Your task to perform on an android device: add a label to a message in the gmail app Image 0: 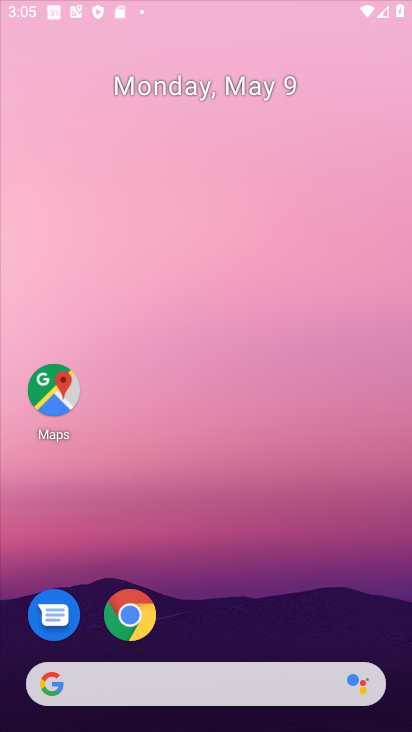
Step 0: drag from (346, 342) to (352, 156)
Your task to perform on an android device: add a label to a message in the gmail app Image 1: 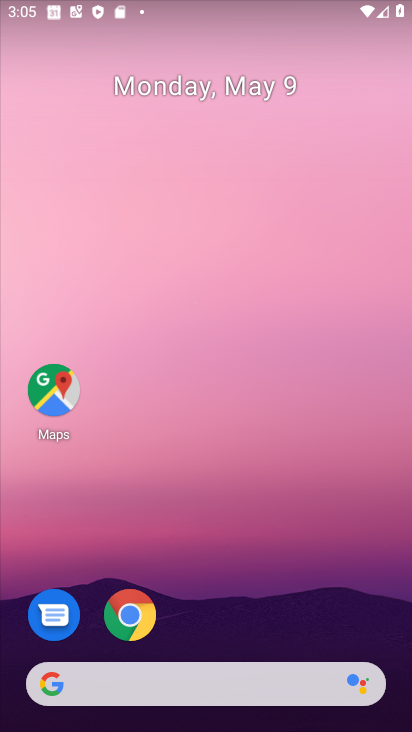
Step 1: click (251, 231)
Your task to perform on an android device: add a label to a message in the gmail app Image 2: 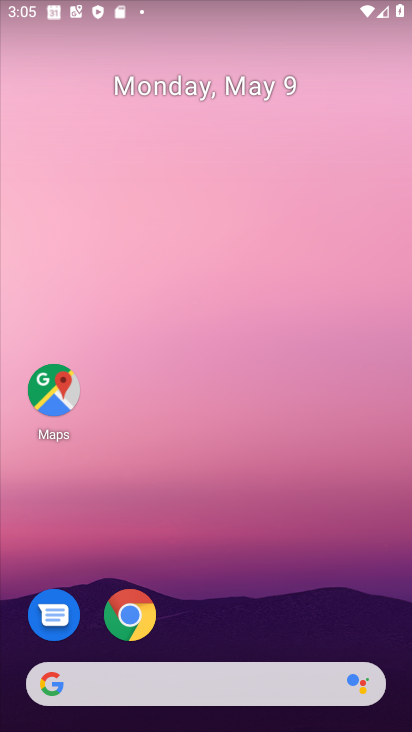
Step 2: drag from (221, 566) to (301, 229)
Your task to perform on an android device: add a label to a message in the gmail app Image 3: 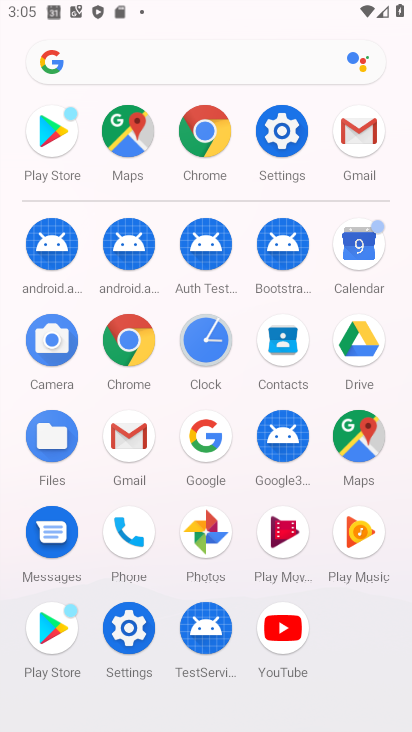
Step 3: click (369, 143)
Your task to perform on an android device: add a label to a message in the gmail app Image 4: 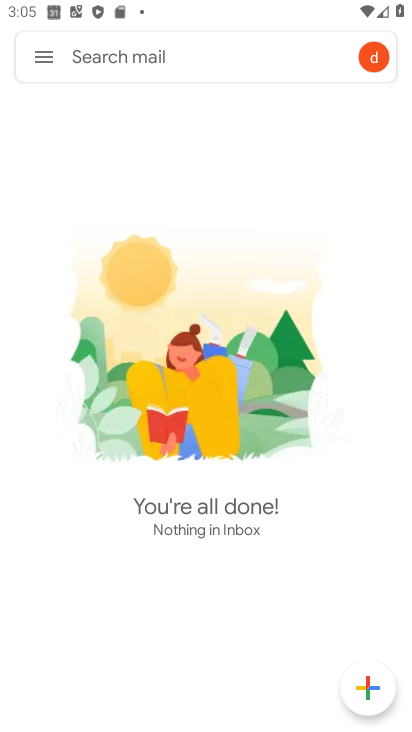
Step 4: click (38, 55)
Your task to perform on an android device: add a label to a message in the gmail app Image 5: 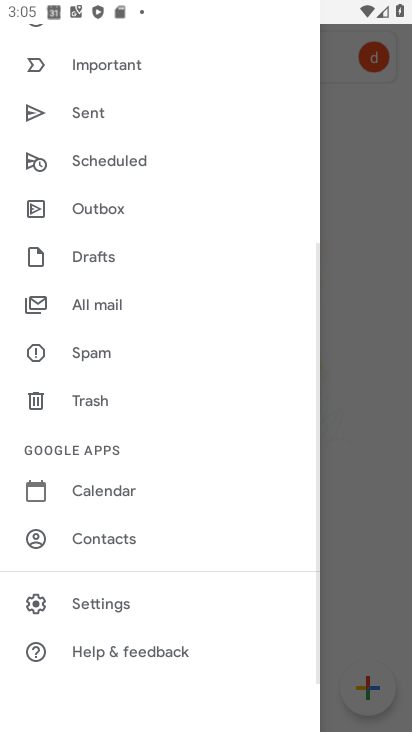
Step 5: click (62, 324)
Your task to perform on an android device: add a label to a message in the gmail app Image 6: 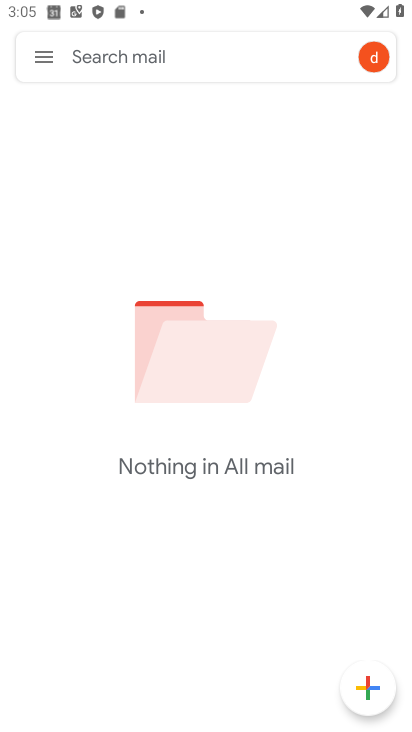
Step 6: task complete